Your task to perform on an android device: turn off picture-in-picture Image 0: 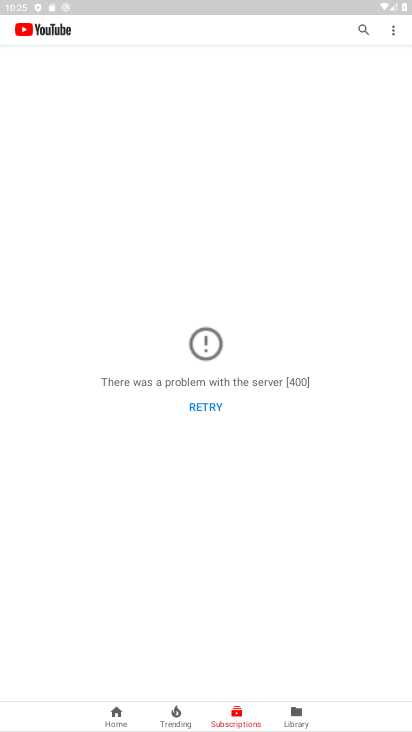
Step 0: press home button
Your task to perform on an android device: turn off picture-in-picture Image 1: 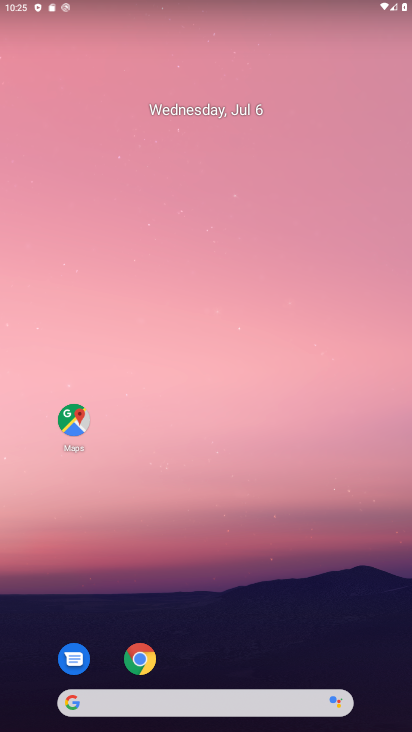
Step 1: click (139, 659)
Your task to perform on an android device: turn off picture-in-picture Image 2: 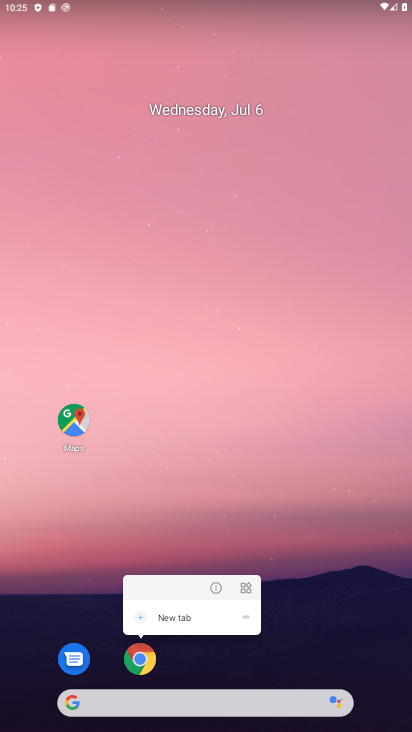
Step 2: click (214, 587)
Your task to perform on an android device: turn off picture-in-picture Image 3: 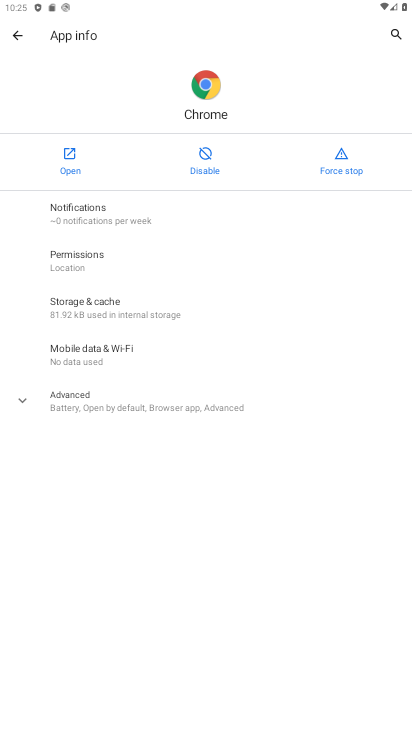
Step 3: drag from (260, 604) to (285, 329)
Your task to perform on an android device: turn off picture-in-picture Image 4: 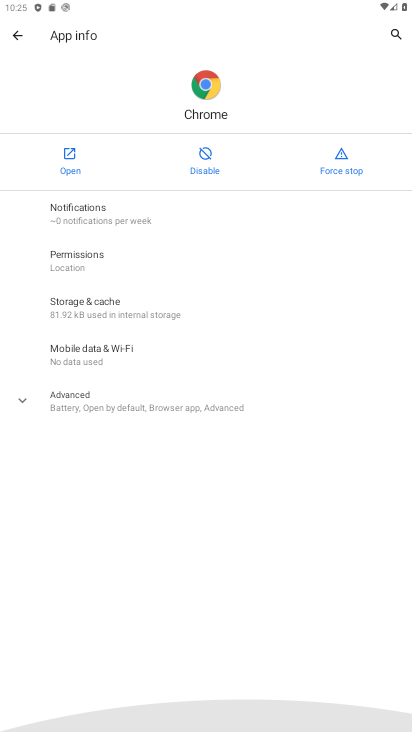
Step 4: click (123, 403)
Your task to perform on an android device: turn off picture-in-picture Image 5: 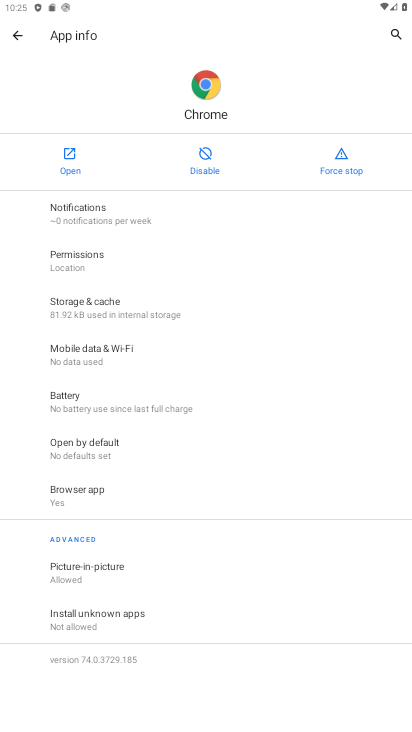
Step 5: click (142, 571)
Your task to perform on an android device: turn off picture-in-picture Image 6: 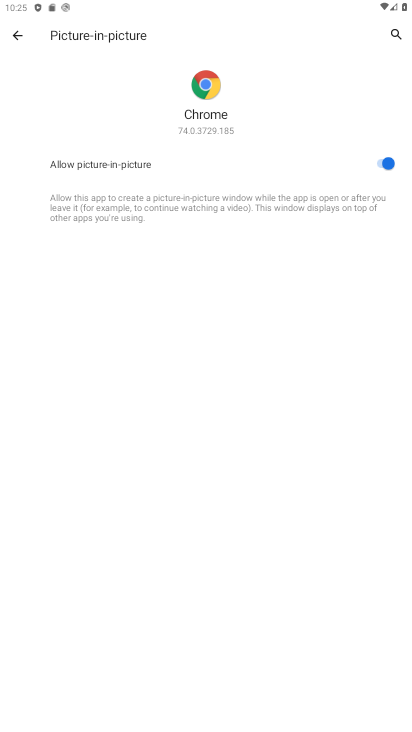
Step 6: click (389, 158)
Your task to perform on an android device: turn off picture-in-picture Image 7: 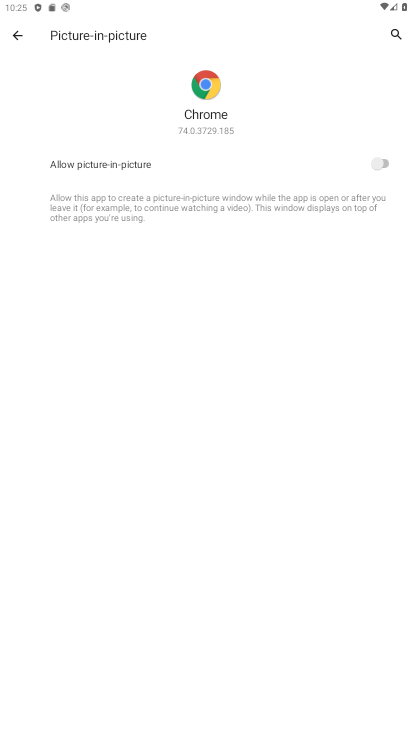
Step 7: task complete